Your task to perform on an android device: change text size in settings app Image 0: 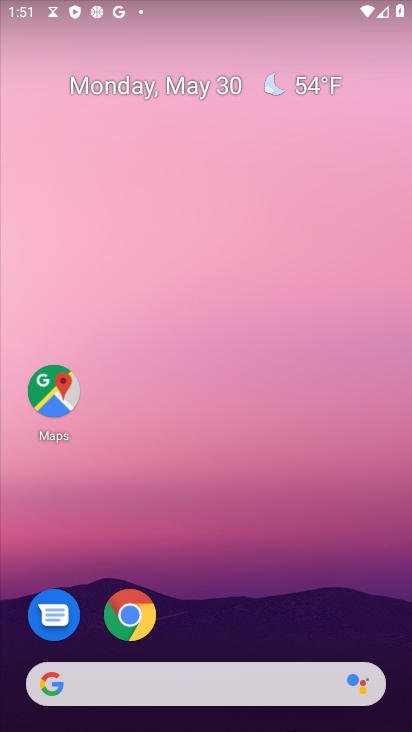
Step 0: drag from (299, 620) to (289, 83)
Your task to perform on an android device: change text size in settings app Image 1: 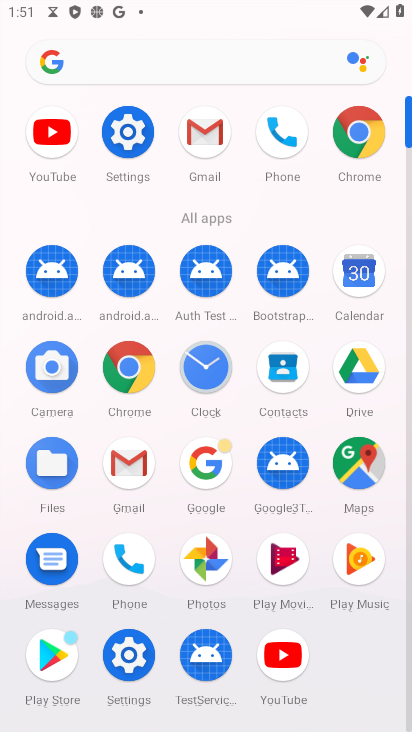
Step 1: click (113, 126)
Your task to perform on an android device: change text size in settings app Image 2: 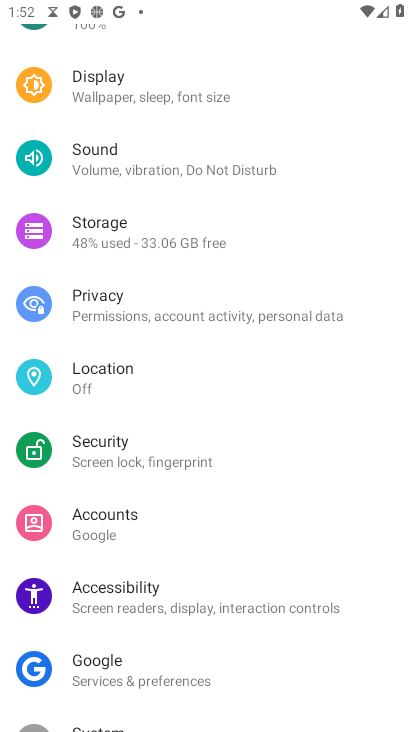
Step 2: drag from (151, 224) to (167, 572)
Your task to perform on an android device: change text size in settings app Image 3: 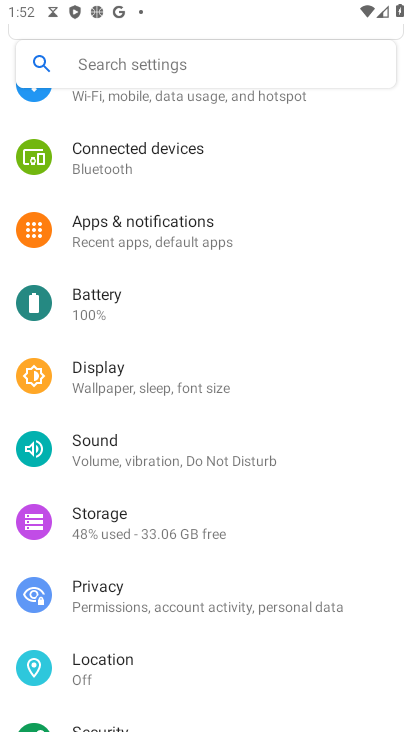
Step 3: drag from (192, 247) to (161, 704)
Your task to perform on an android device: change text size in settings app Image 4: 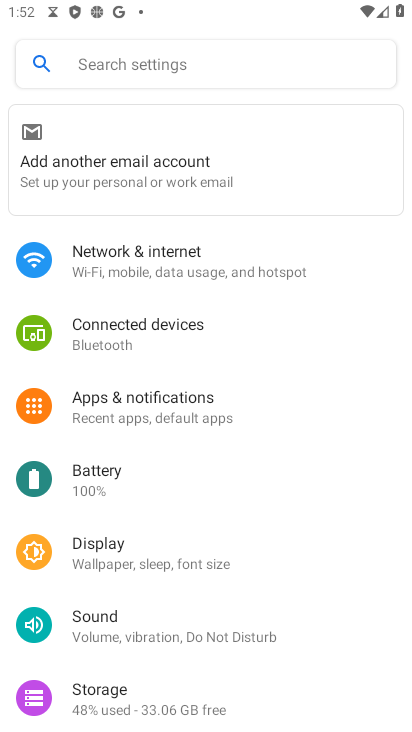
Step 4: click (146, 559)
Your task to perform on an android device: change text size in settings app Image 5: 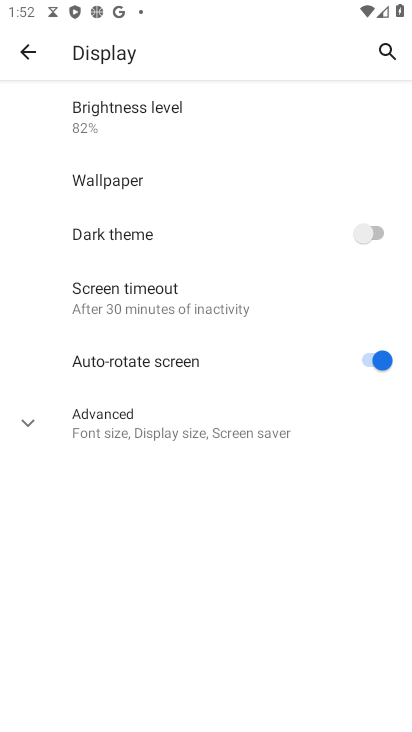
Step 5: click (160, 439)
Your task to perform on an android device: change text size in settings app Image 6: 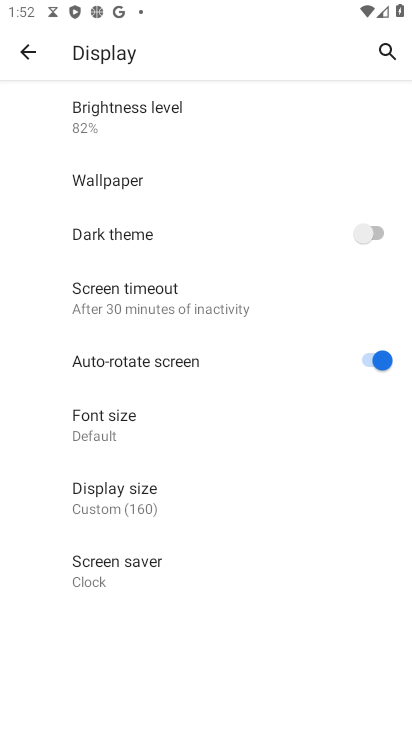
Step 6: click (134, 416)
Your task to perform on an android device: change text size in settings app Image 7: 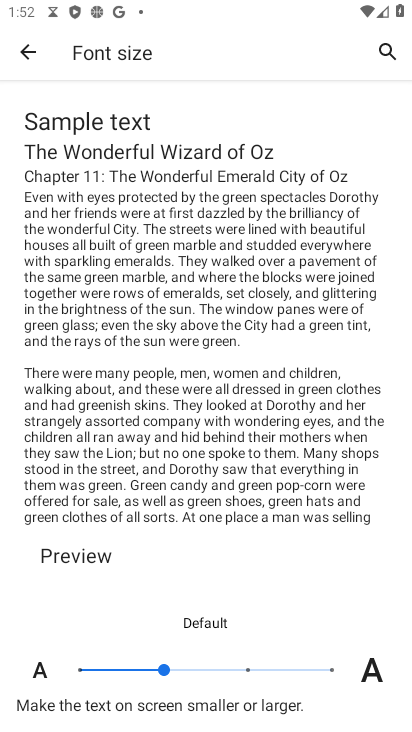
Step 7: click (193, 668)
Your task to perform on an android device: change text size in settings app Image 8: 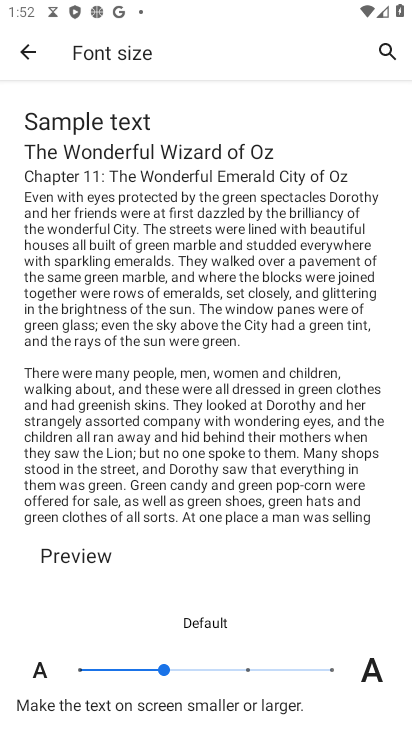
Step 8: click (187, 659)
Your task to perform on an android device: change text size in settings app Image 9: 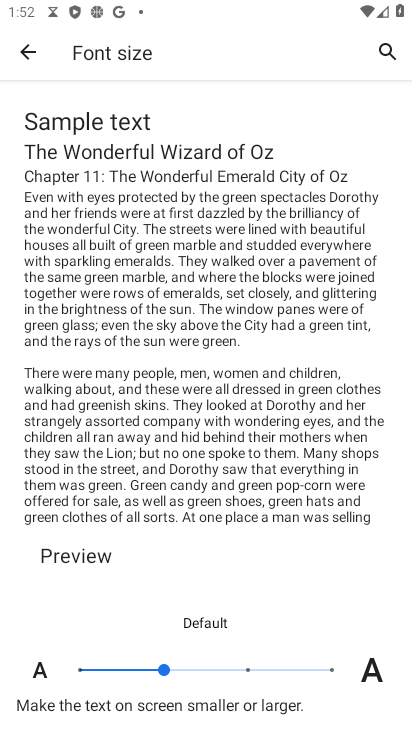
Step 9: click (157, 675)
Your task to perform on an android device: change text size in settings app Image 10: 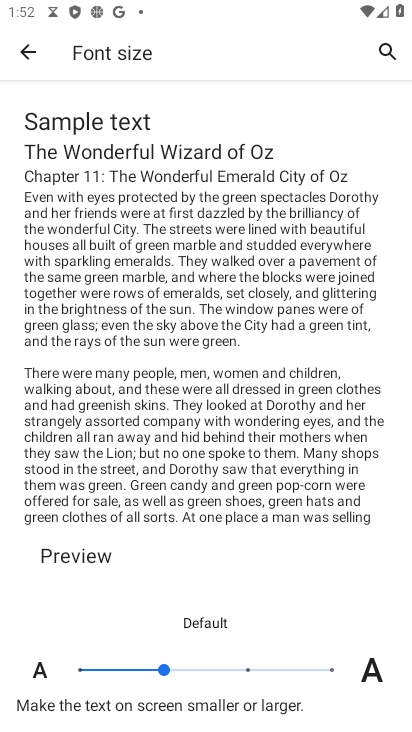
Step 10: click (196, 663)
Your task to perform on an android device: change text size in settings app Image 11: 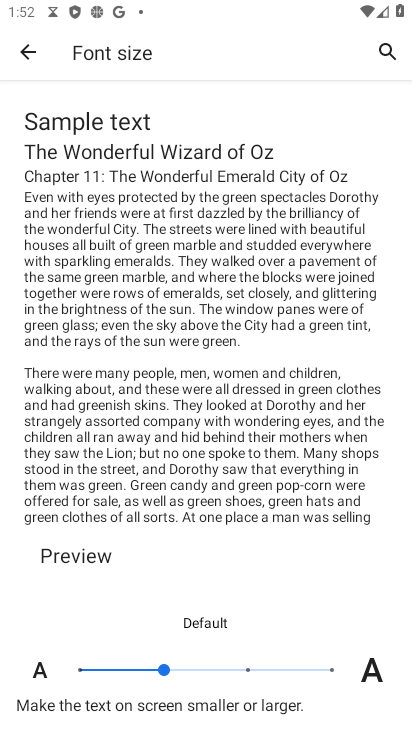
Step 11: click (252, 673)
Your task to perform on an android device: change text size in settings app Image 12: 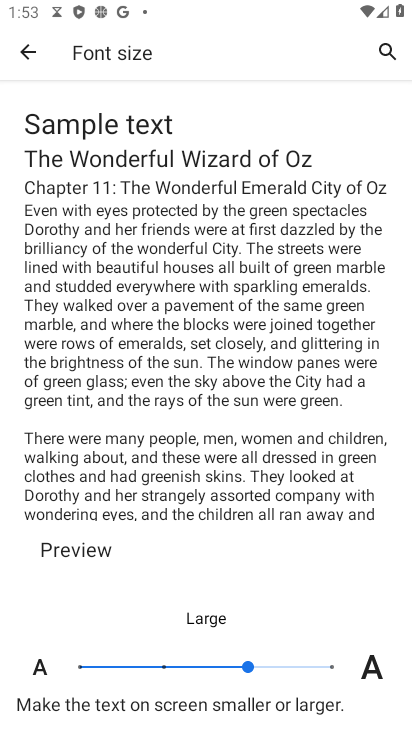
Step 12: task complete